Your task to perform on an android device: open a new tab in the chrome app Image 0: 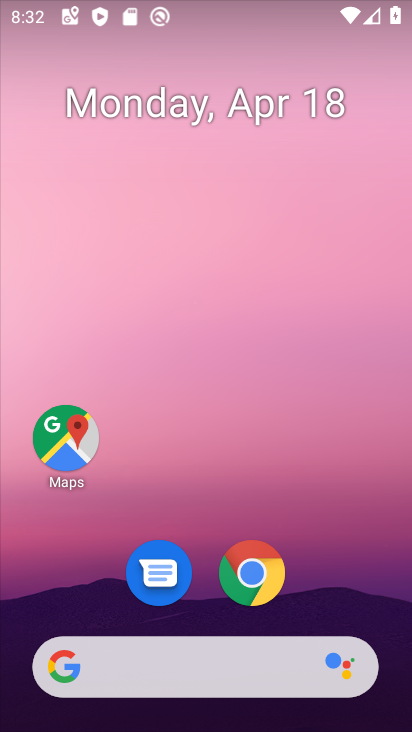
Step 0: click (263, 588)
Your task to perform on an android device: open a new tab in the chrome app Image 1: 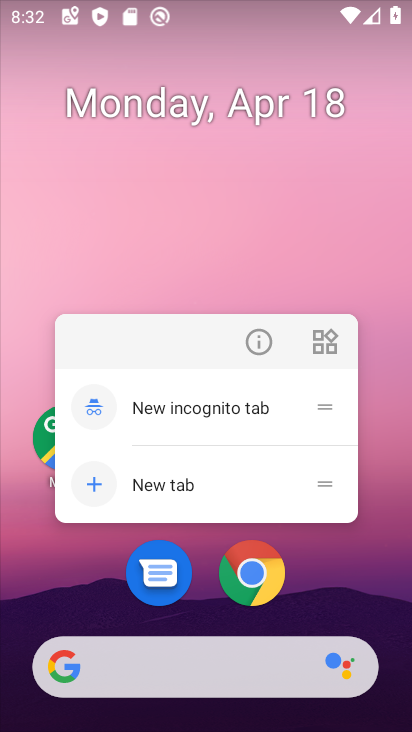
Step 1: click (171, 488)
Your task to perform on an android device: open a new tab in the chrome app Image 2: 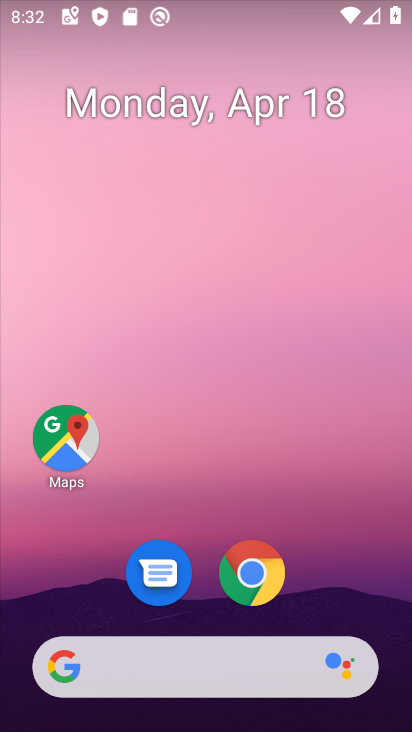
Step 2: click (257, 583)
Your task to perform on an android device: open a new tab in the chrome app Image 3: 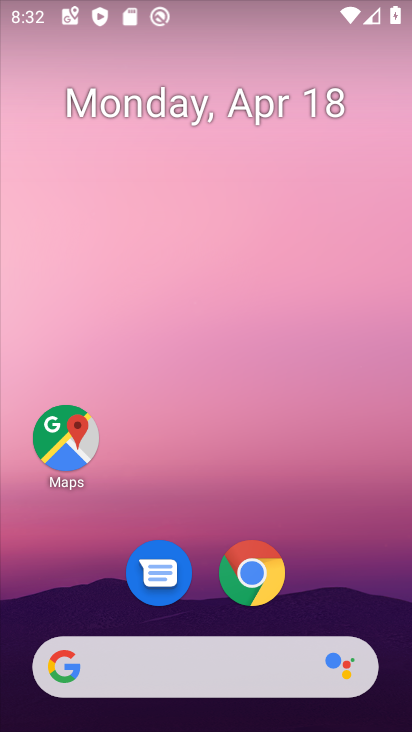
Step 3: click (257, 583)
Your task to perform on an android device: open a new tab in the chrome app Image 4: 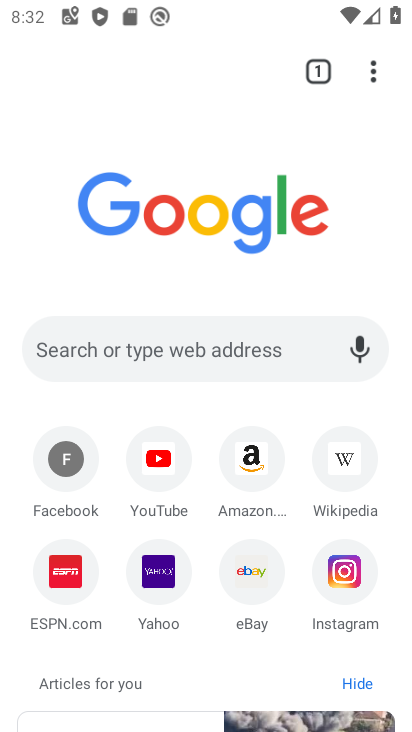
Step 4: click (365, 71)
Your task to perform on an android device: open a new tab in the chrome app Image 5: 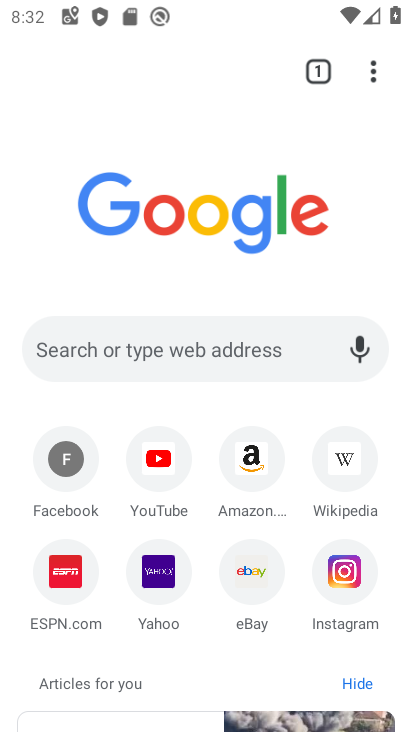
Step 5: task complete